Your task to perform on an android device: change text size in settings app Image 0: 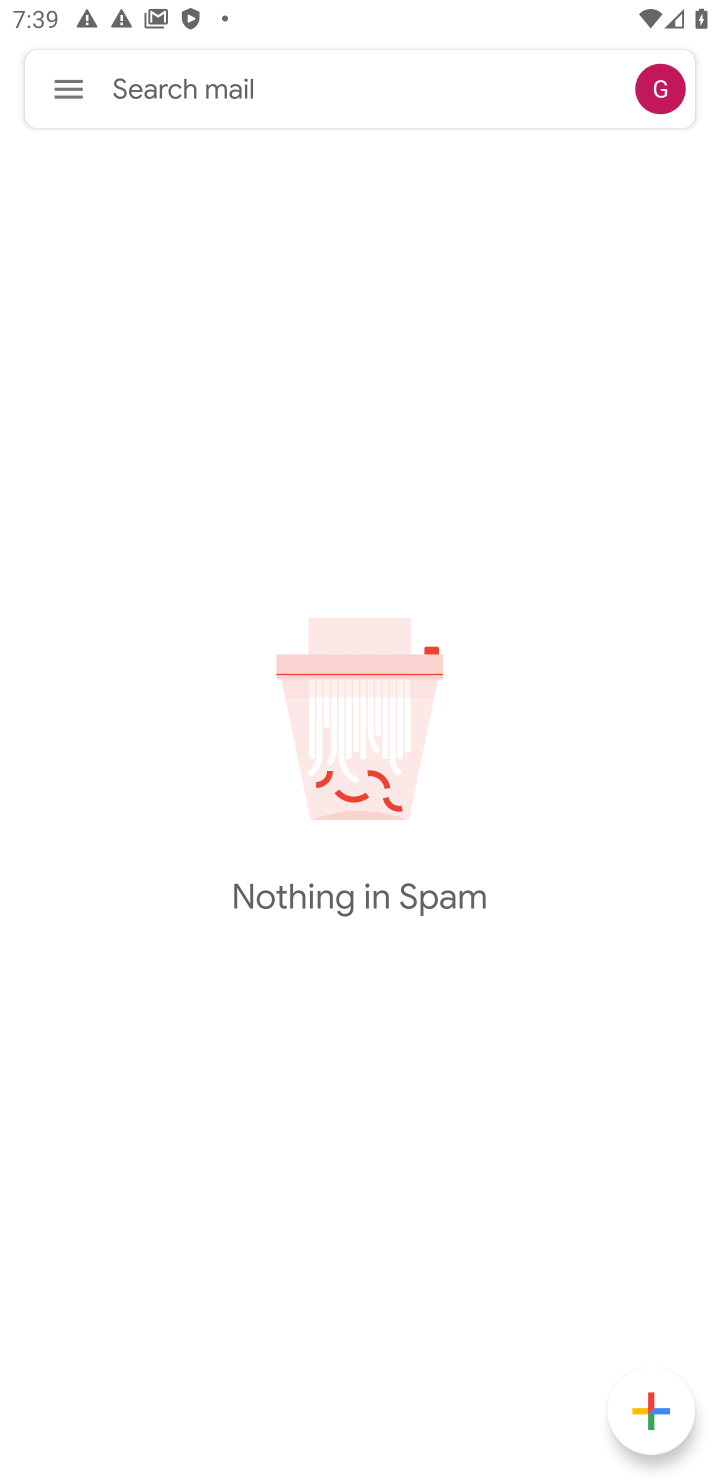
Step 0: press home button
Your task to perform on an android device: change text size in settings app Image 1: 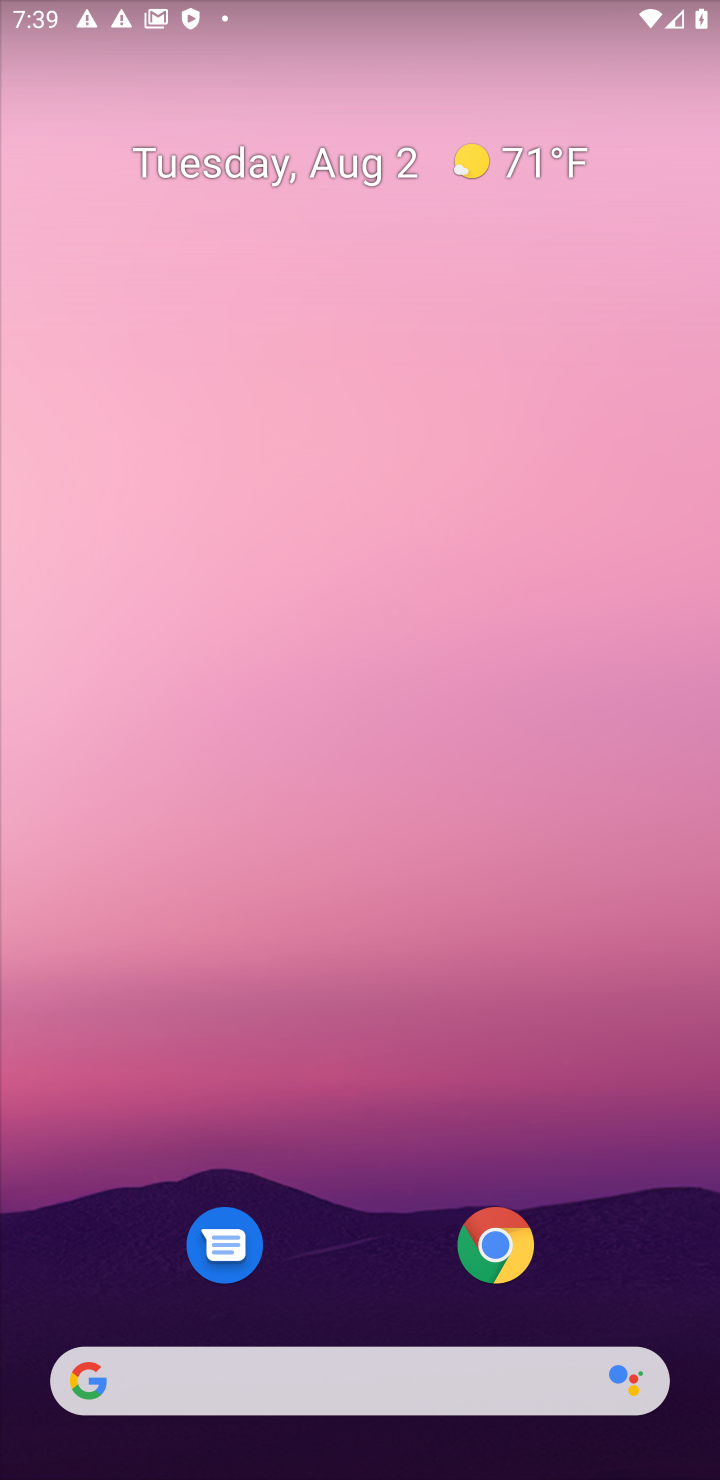
Step 1: drag from (361, 1236) to (355, 527)
Your task to perform on an android device: change text size in settings app Image 2: 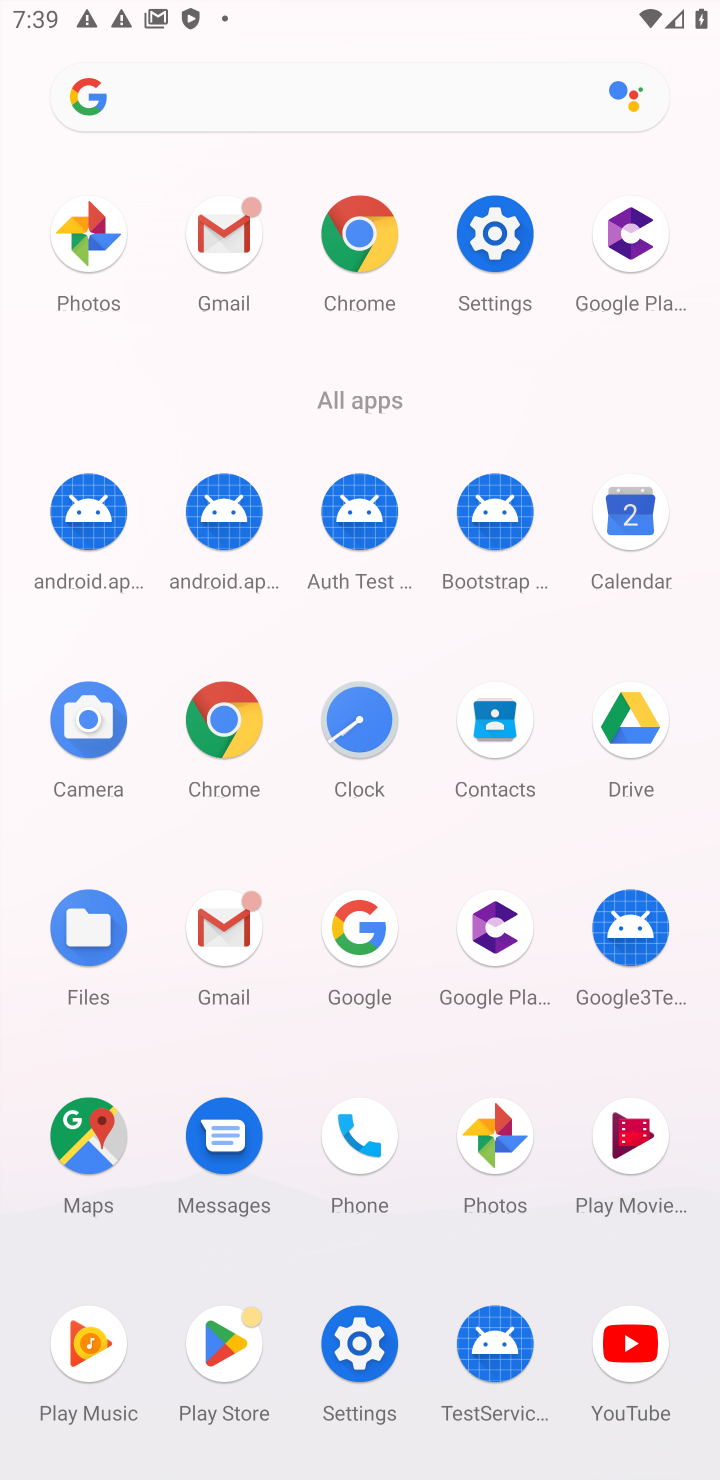
Step 2: click (501, 272)
Your task to perform on an android device: change text size in settings app Image 3: 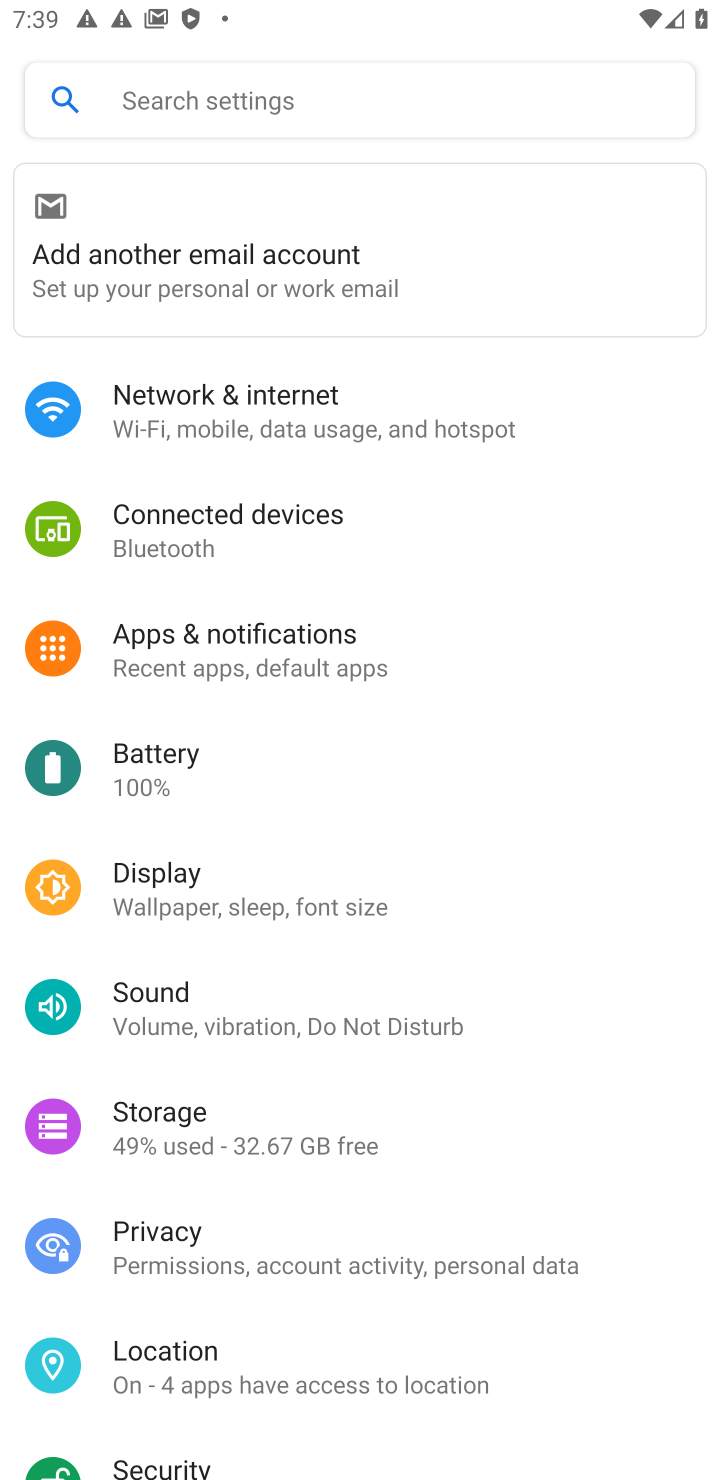
Step 3: click (134, 879)
Your task to perform on an android device: change text size in settings app Image 4: 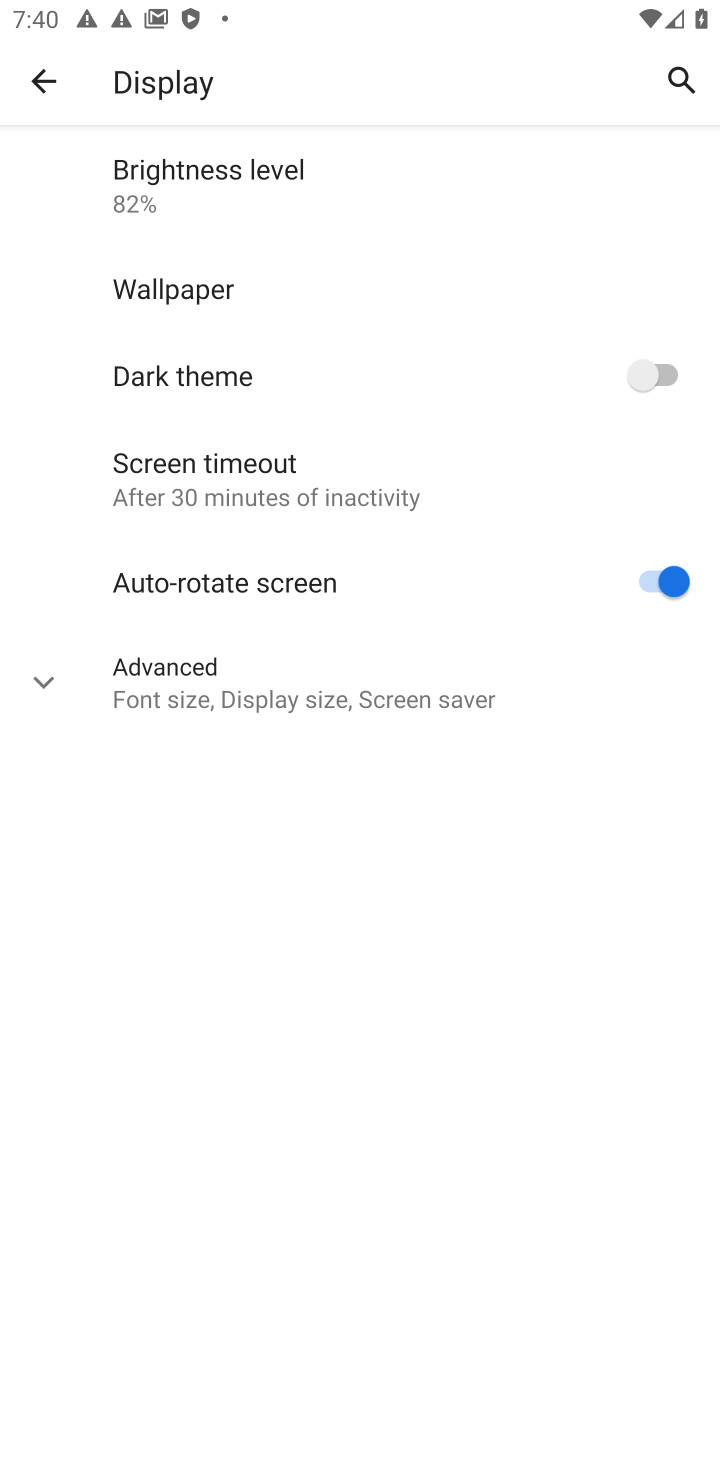
Step 4: click (242, 683)
Your task to perform on an android device: change text size in settings app Image 5: 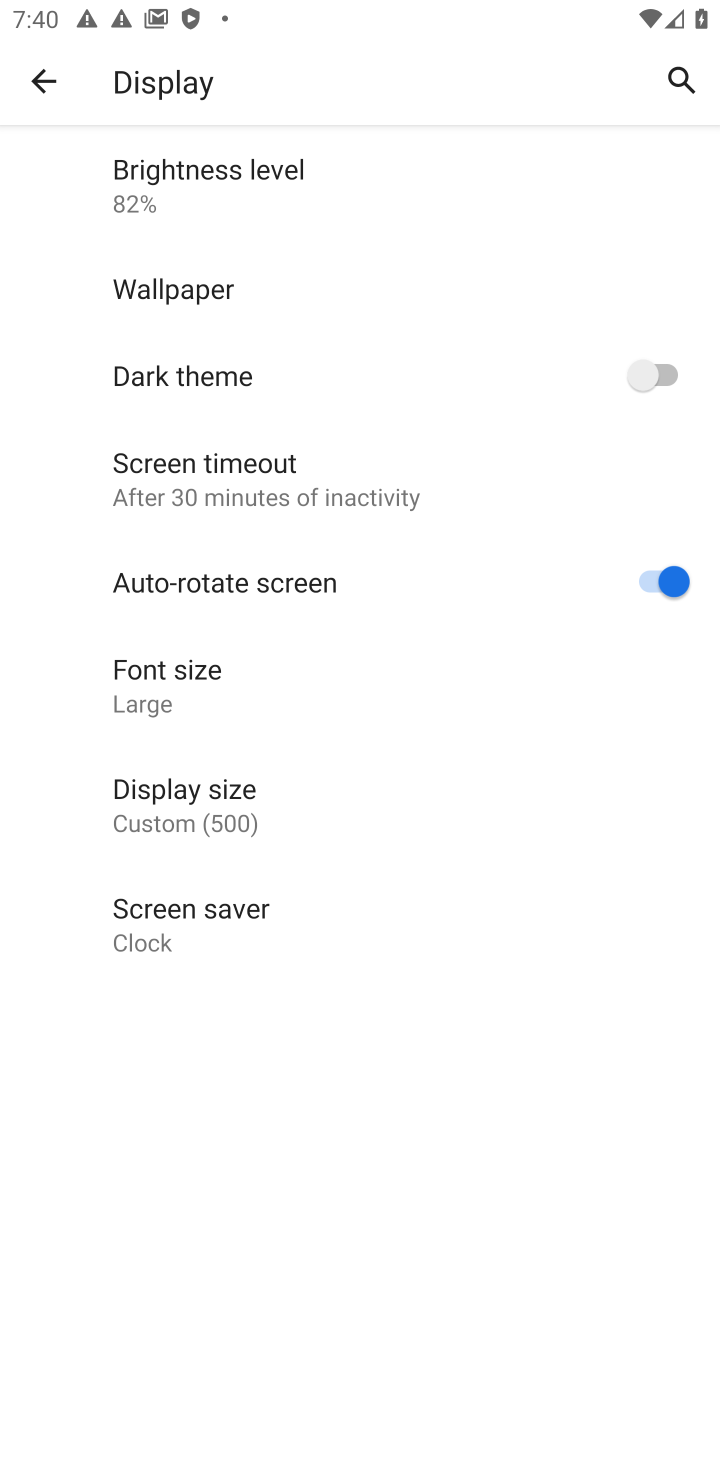
Step 5: click (116, 677)
Your task to perform on an android device: change text size in settings app Image 6: 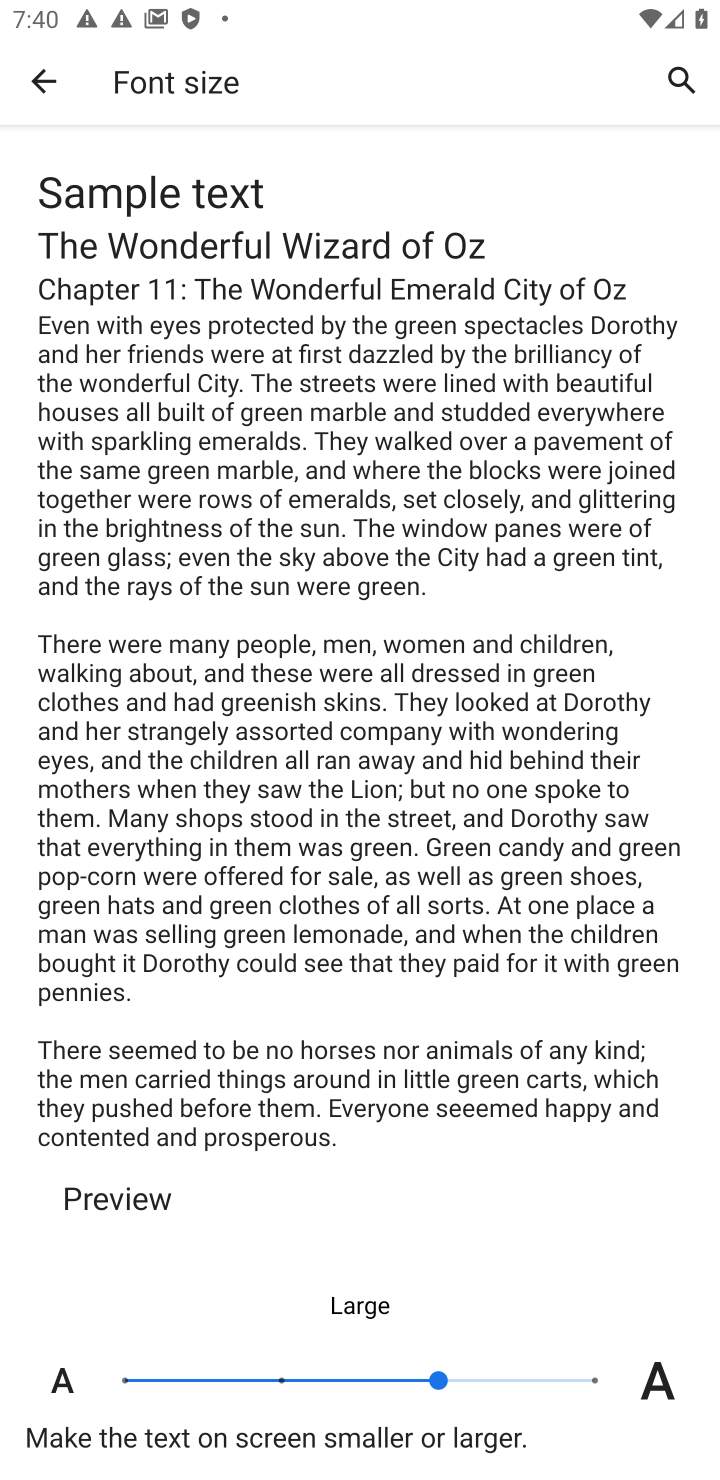
Step 6: click (288, 1373)
Your task to perform on an android device: change text size in settings app Image 7: 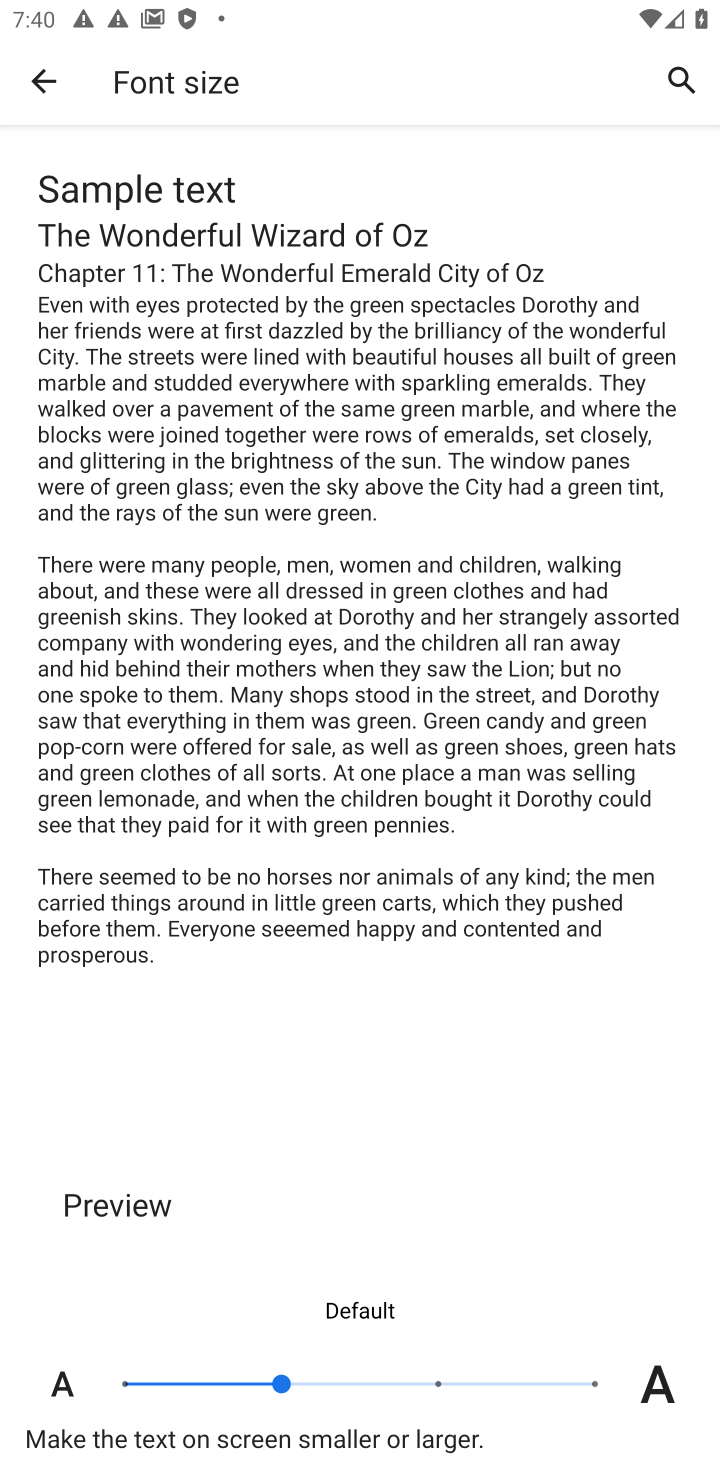
Step 7: task complete